Your task to perform on an android device: Open battery settings Image 0: 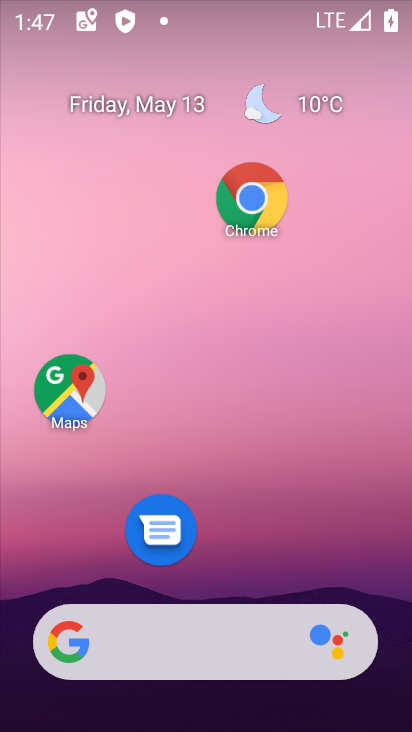
Step 0: drag from (191, 585) to (148, 110)
Your task to perform on an android device: Open battery settings Image 1: 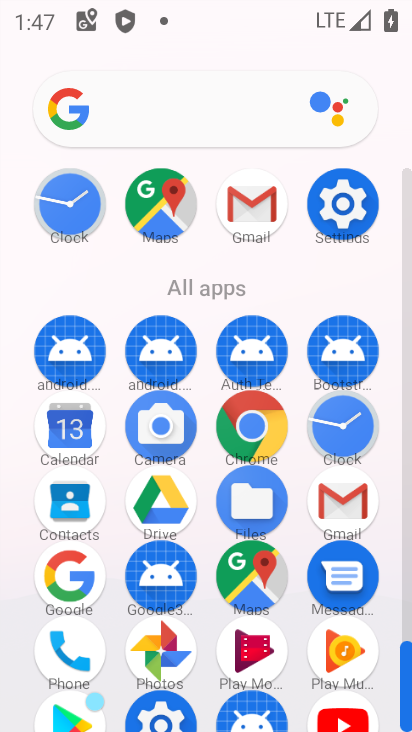
Step 1: click (334, 198)
Your task to perform on an android device: Open battery settings Image 2: 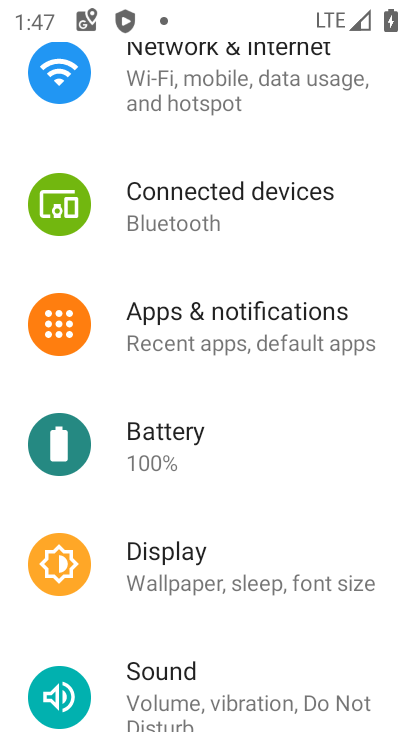
Step 2: click (187, 421)
Your task to perform on an android device: Open battery settings Image 3: 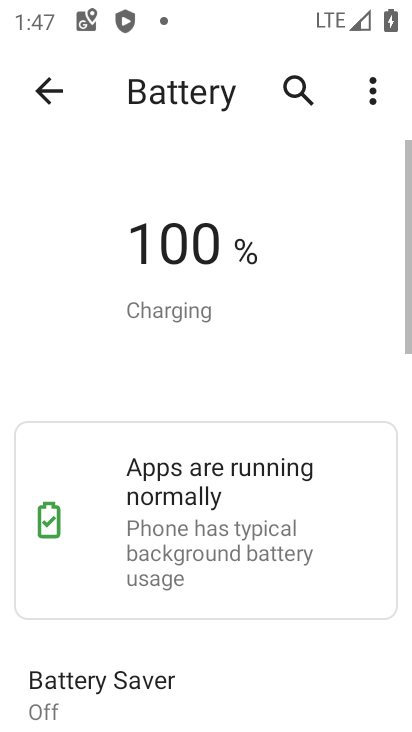
Step 3: task complete